Your task to perform on an android device: Open Chrome and go to settings Image 0: 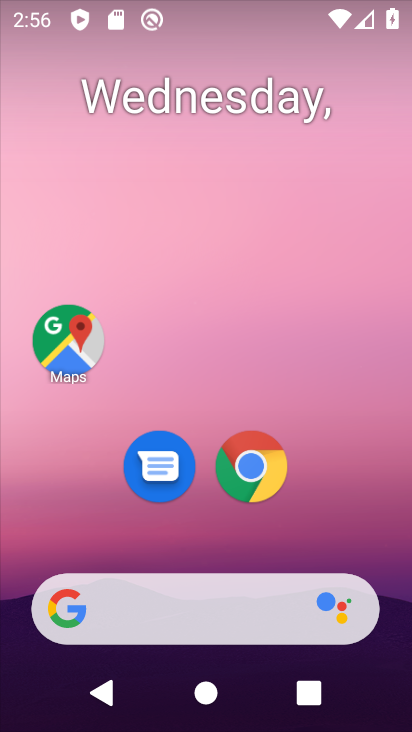
Step 0: drag from (199, 556) to (233, 57)
Your task to perform on an android device: Open Chrome and go to settings Image 1: 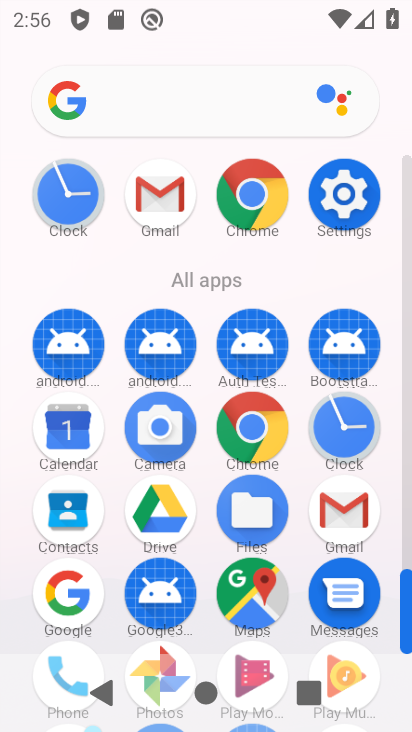
Step 1: click (255, 200)
Your task to perform on an android device: Open Chrome and go to settings Image 2: 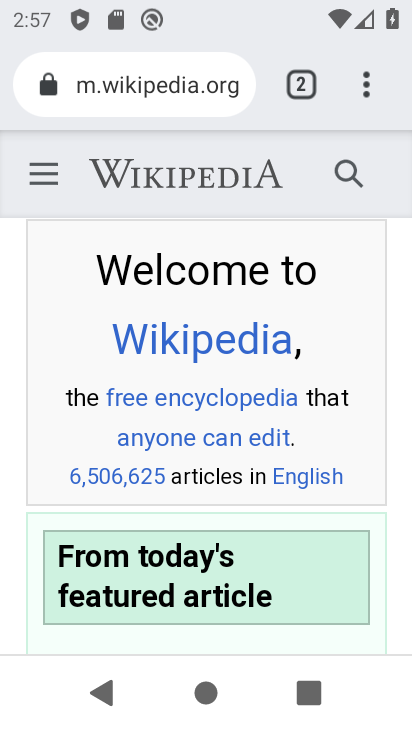
Step 2: click (361, 83)
Your task to perform on an android device: Open Chrome and go to settings Image 3: 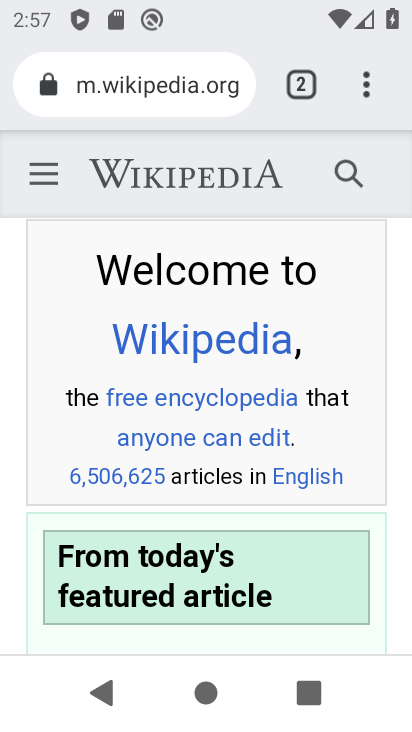
Step 3: task complete